Your task to perform on an android device: change the clock display to show seconds Image 0: 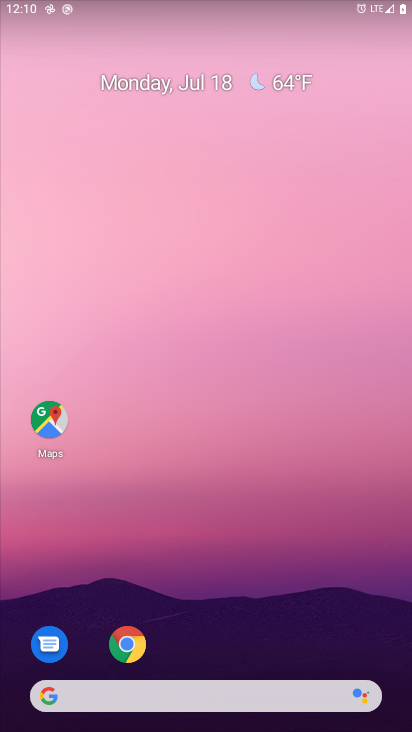
Step 0: press home button
Your task to perform on an android device: change the clock display to show seconds Image 1: 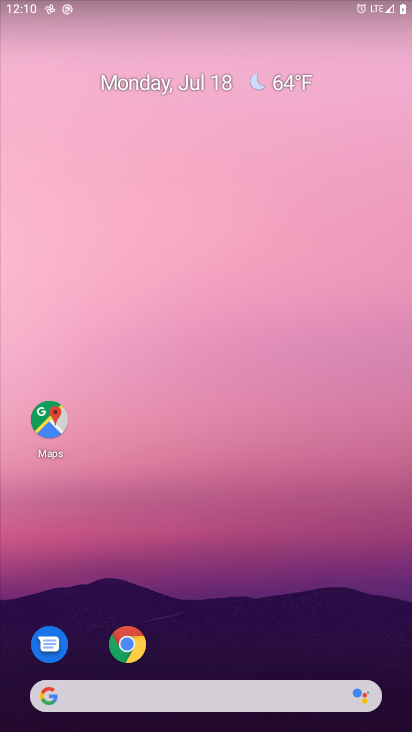
Step 1: drag from (299, 648) to (300, 213)
Your task to perform on an android device: change the clock display to show seconds Image 2: 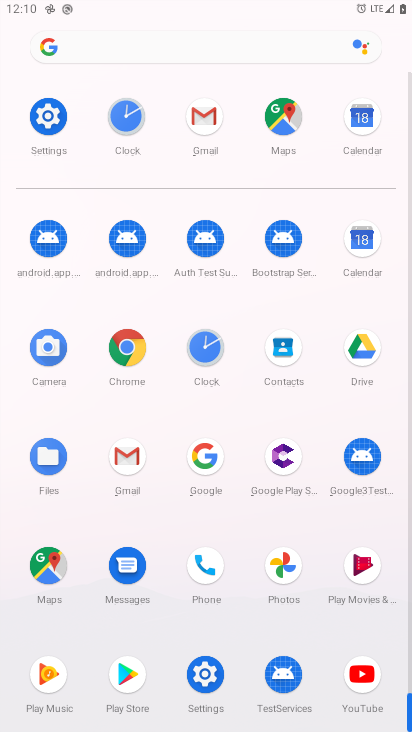
Step 2: click (202, 346)
Your task to perform on an android device: change the clock display to show seconds Image 3: 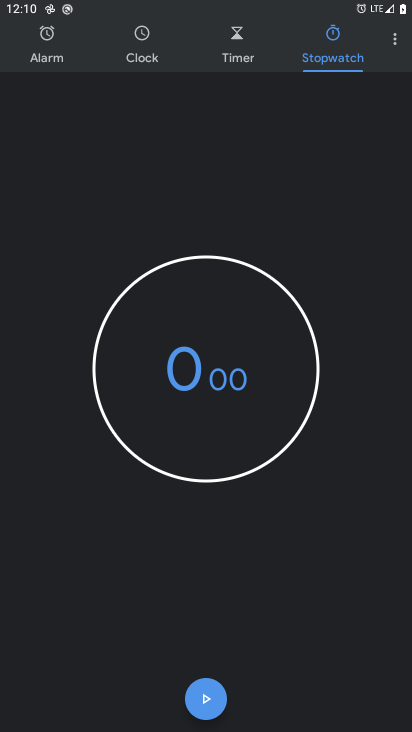
Step 3: click (398, 41)
Your task to perform on an android device: change the clock display to show seconds Image 4: 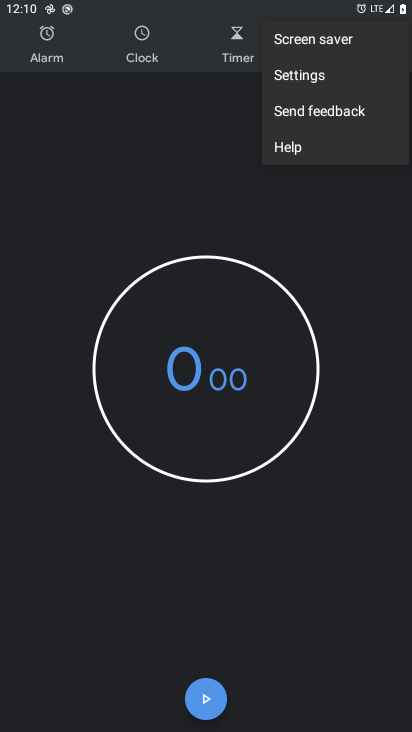
Step 4: click (304, 63)
Your task to perform on an android device: change the clock display to show seconds Image 5: 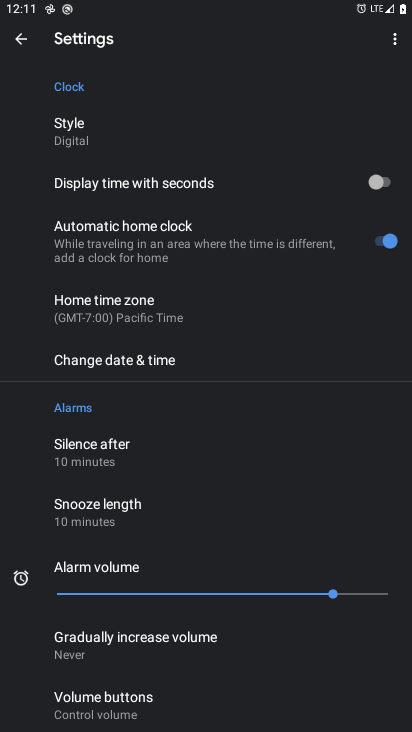
Step 5: click (381, 181)
Your task to perform on an android device: change the clock display to show seconds Image 6: 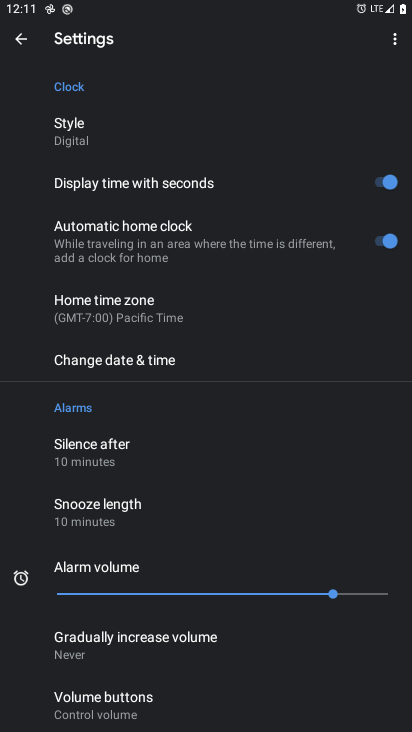
Step 6: task complete